Your task to perform on an android device: set the timer Image 0: 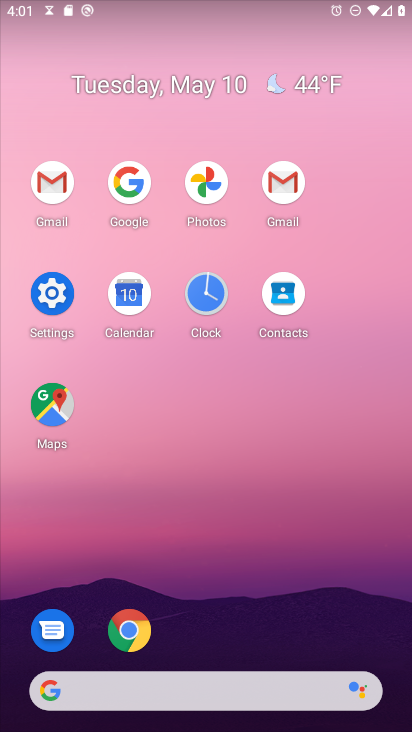
Step 0: click (201, 302)
Your task to perform on an android device: set the timer Image 1: 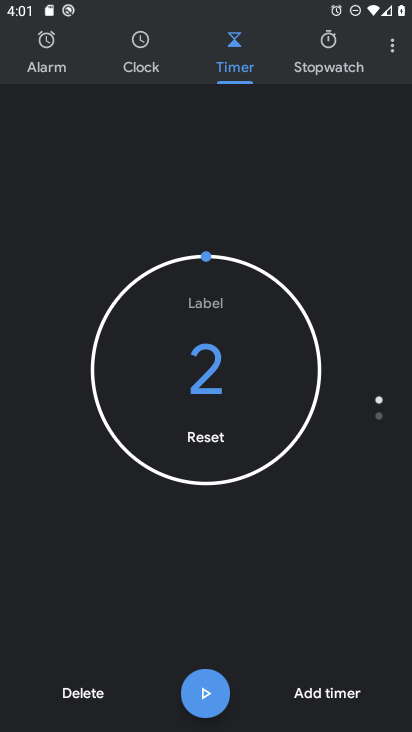
Step 1: click (326, 685)
Your task to perform on an android device: set the timer Image 2: 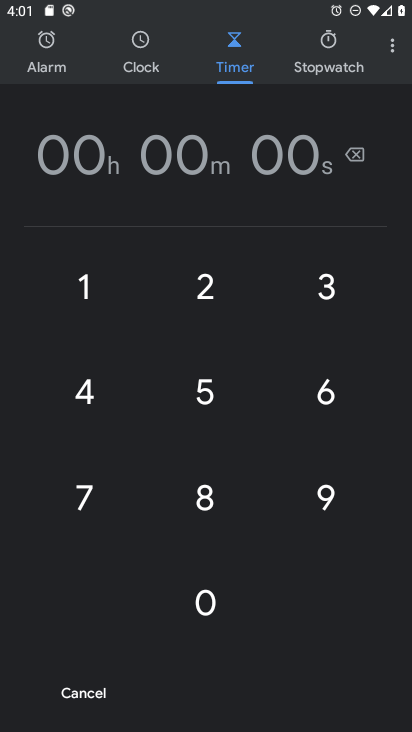
Step 2: click (223, 402)
Your task to perform on an android device: set the timer Image 3: 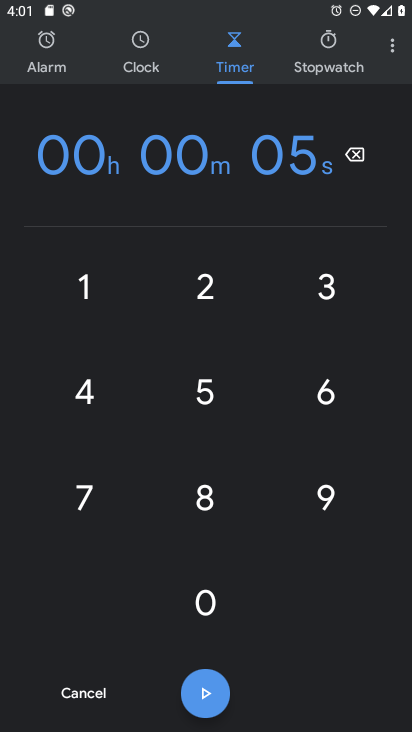
Step 3: click (239, 392)
Your task to perform on an android device: set the timer Image 4: 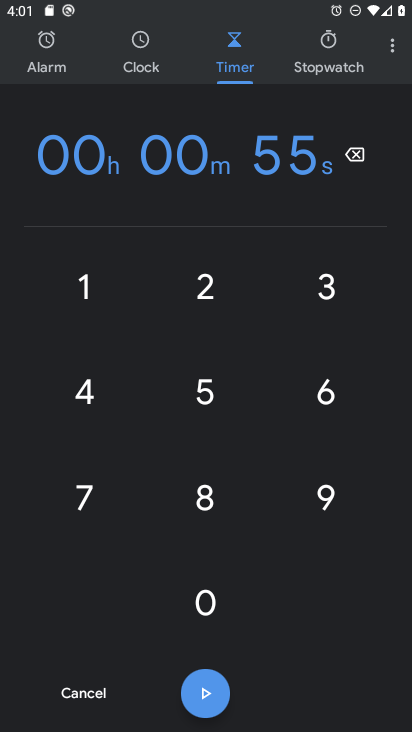
Step 4: click (220, 699)
Your task to perform on an android device: set the timer Image 5: 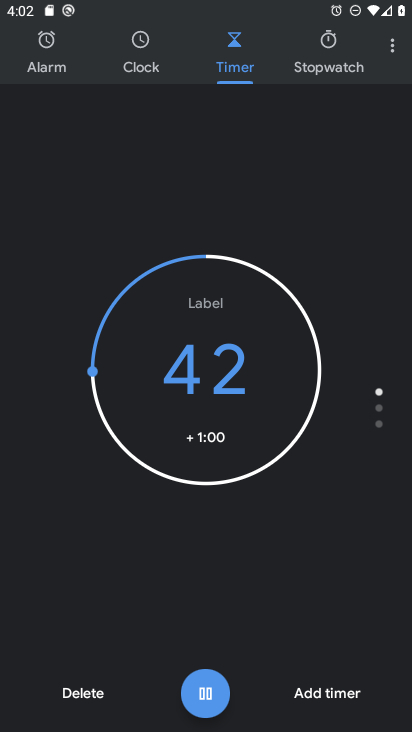
Step 5: task complete